Your task to perform on an android device: see sites visited before in the chrome app Image 0: 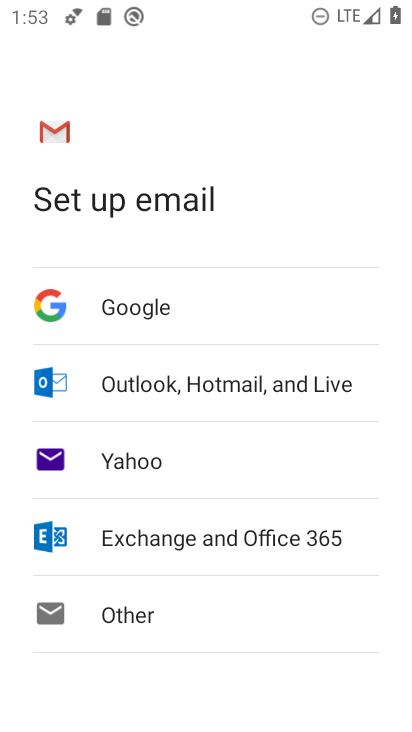
Step 0: press home button
Your task to perform on an android device: see sites visited before in the chrome app Image 1: 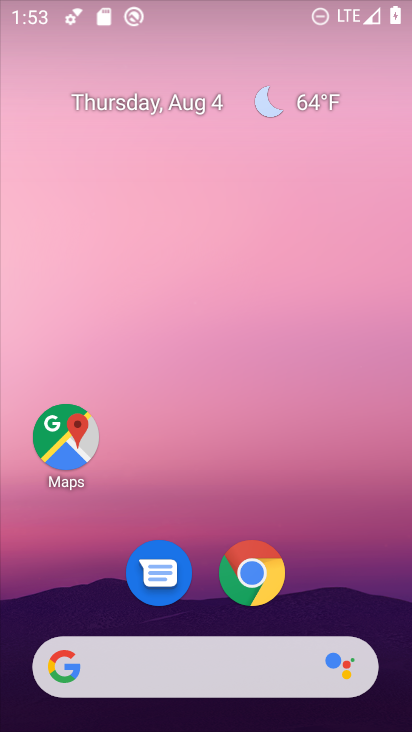
Step 1: drag from (373, 521) to (285, 63)
Your task to perform on an android device: see sites visited before in the chrome app Image 2: 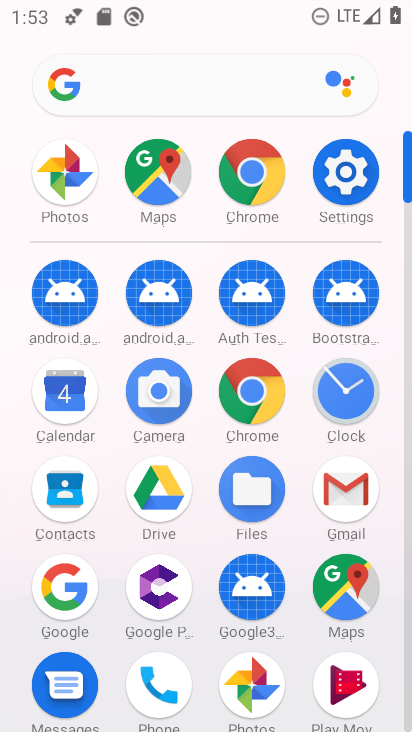
Step 2: click (259, 390)
Your task to perform on an android device: see sites visited before in the chrome app Image 3: 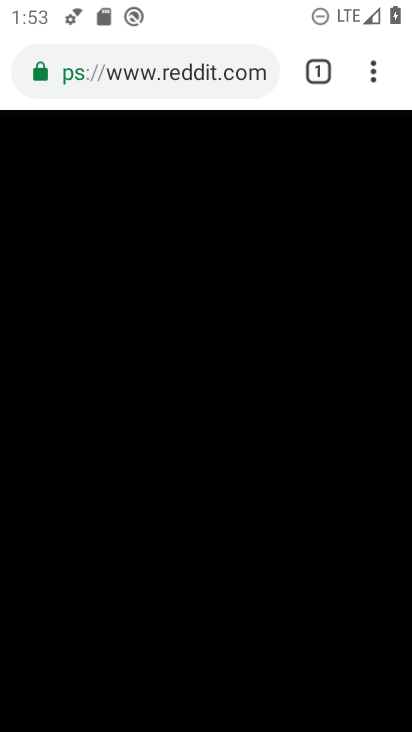
Step 3: task complete